Your task to perform on an android device: turn off wifi Image 0: 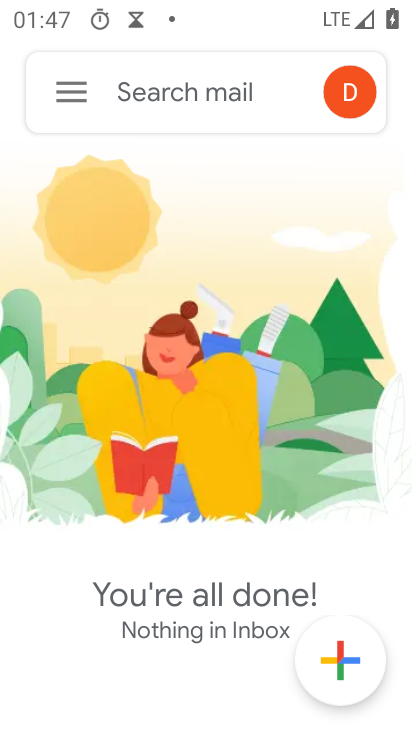
Step 0: press home button
Your task to perform on an android device: turn off wifi Image 1: 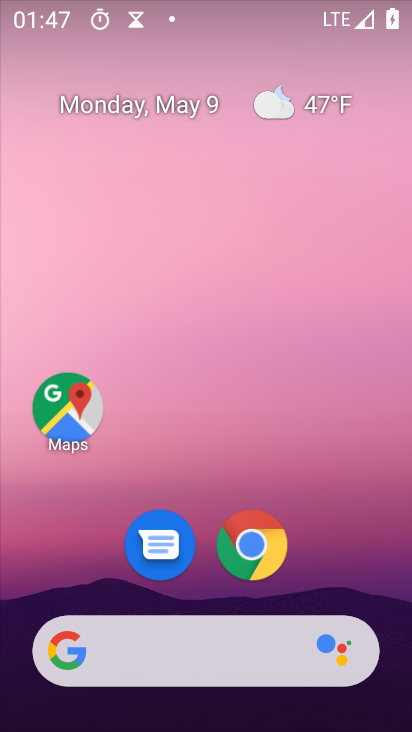
Step 1: task complete